Your task to perform on an android device: Go to settings Image 0: 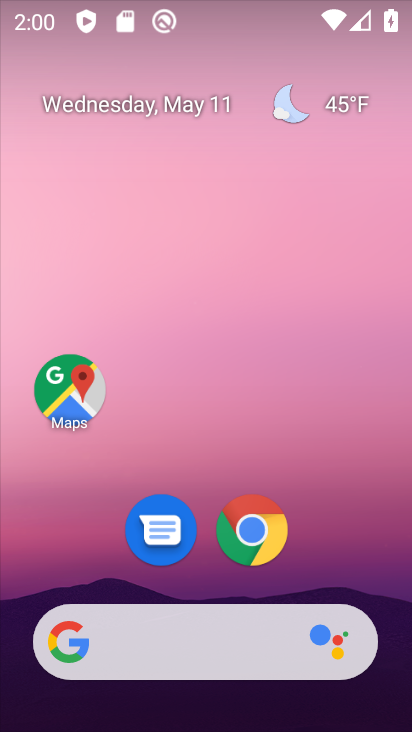
Step 0: click (247, 135)
Your task to perform on an android device: Go to settings Image 1: 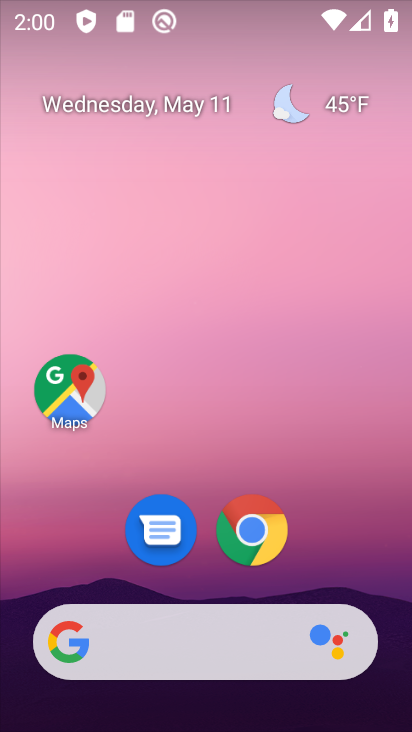
Step 1: drag from (331, 558) to (199, 83)
Your task to perform on an android device: Go to settings Image 2: 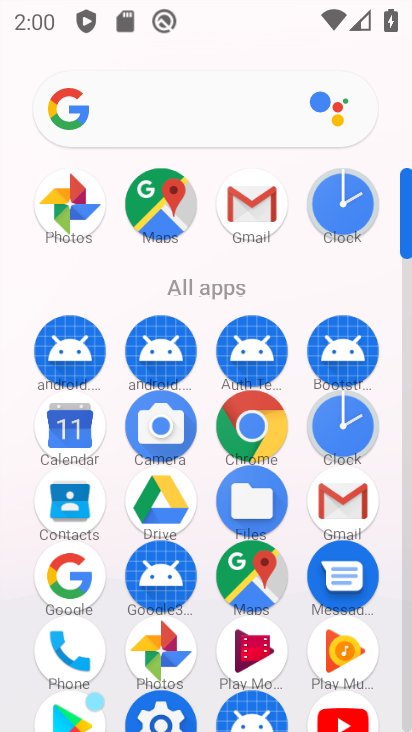
Step 2: drag from (283, 534) to (258, 80)
Your task to perform on an android device: Go to settings Image 3: 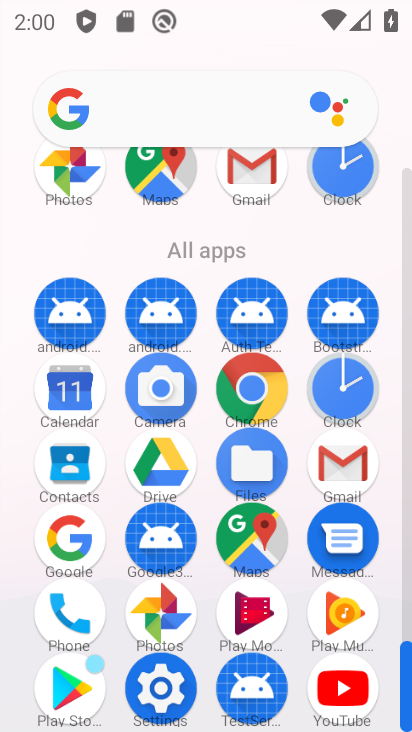
Step 3: drag from (274, 508) to (247, 171)
Your task to perform on an android device: Go to settings Image 4: 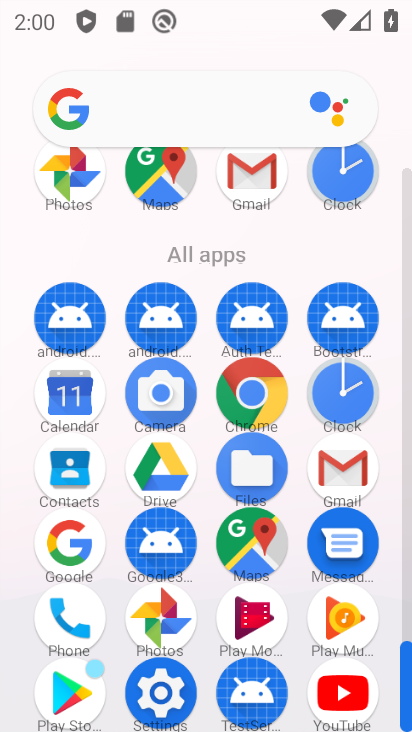
Step 4: click (150, 689)
Your task to perform on an android device: Go to settings Image 5: 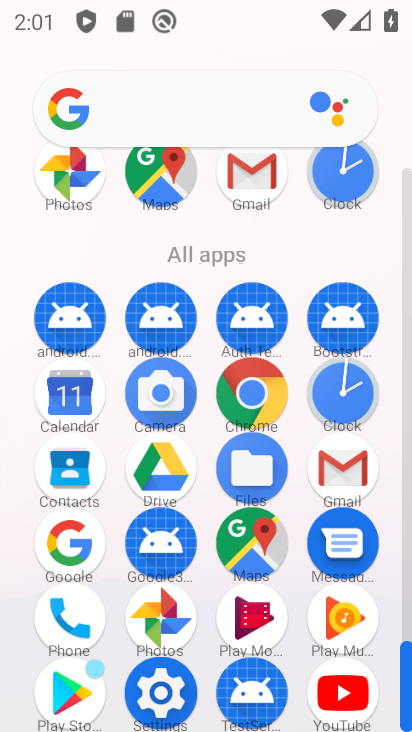
Step 5: click (151, 689)
Your task to perform on an android device: Go to settings Image 6: 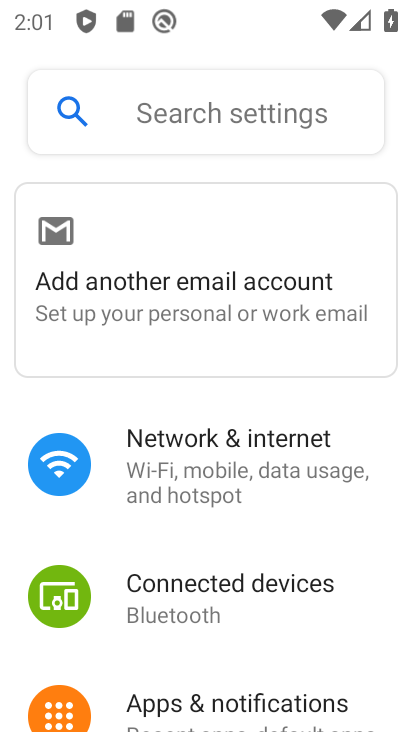
Step 6: drag from (251, 573) to (225, 318)
Your task to perform on an android device: Go to settings Image 7: 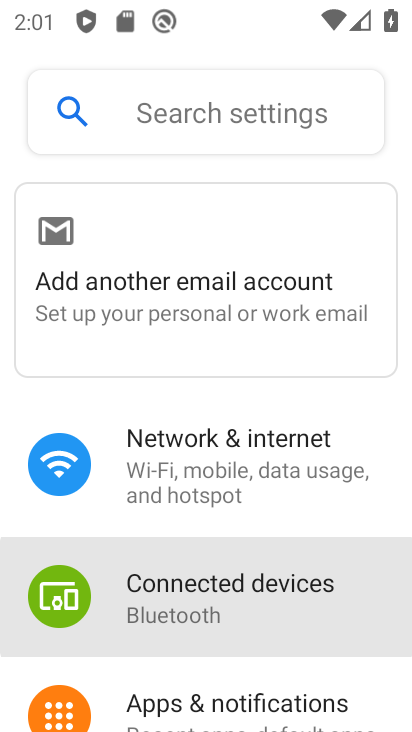
Step 7: drag from (198, 560) to (195, 318)
Your task to perform on an android device: Go to settings Image 8: 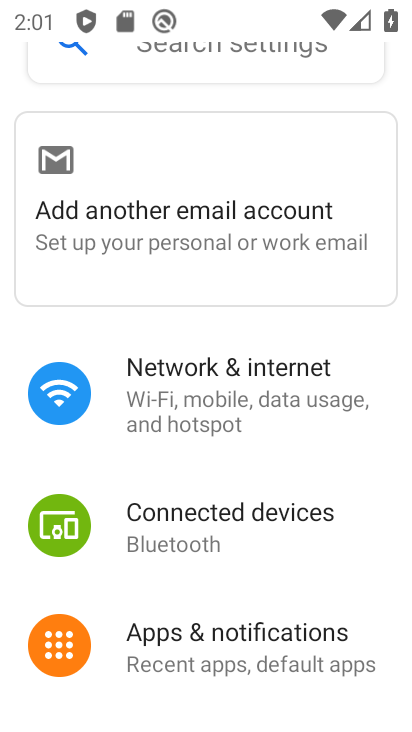
Step 8: drag from (204, 486) to (215, 301)
Your task to perform on an android device: Go to settings Image 9: 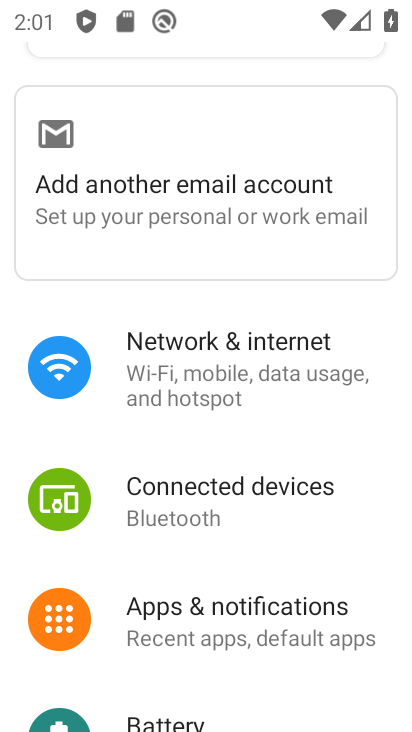
Step 9: drag from (261, 570) to (242, 309)
Your task to perform on an android device: Go to settings Image 10: 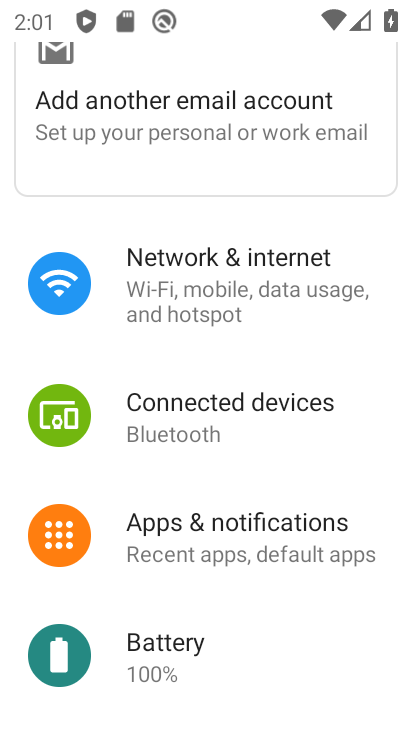
Step 10: drag from (242, 640) to (231, 275)
Your task to perform on an android device: Go to settings Image 11: 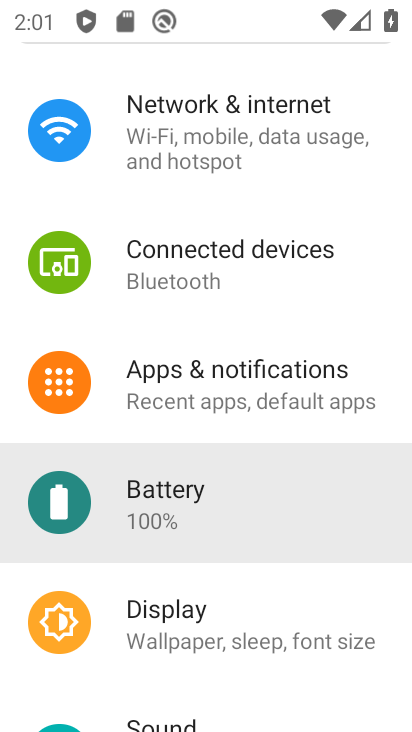
Step 11: click (137, 190)
Your task to perform on an android device: Go to settings Image 12: 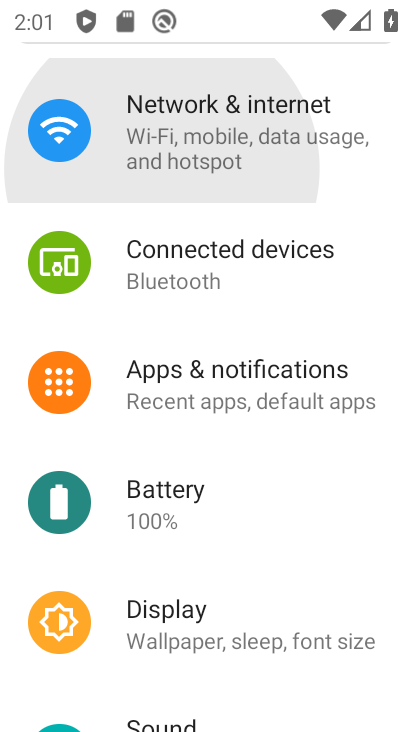
Step 12: task complete